Your task to perform on an android device: turn pop-ups on in chrome Image 0: 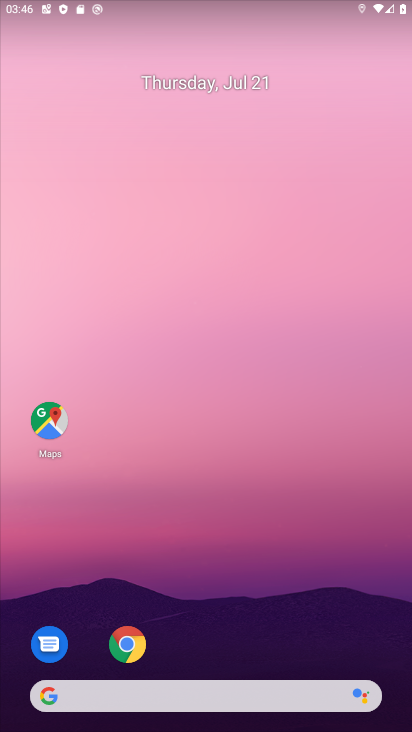
Step 0: click (127, 651)
Your task to perform on an android device: turn pop-ups on in chrome Image 1: 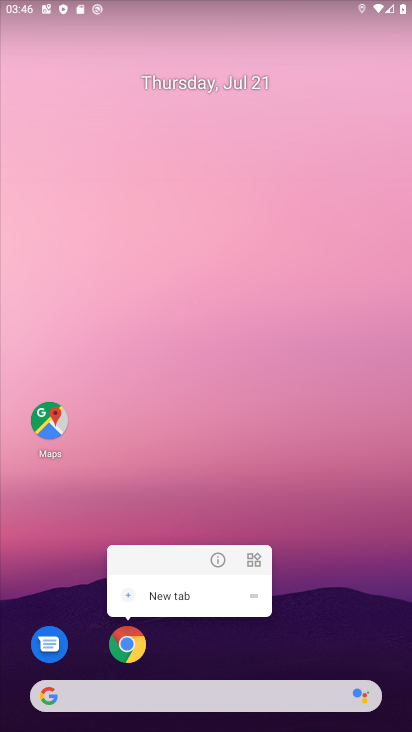
Step 1: click (125, 643)
Your task to perform on an android device: turn pop-ups on in chrome Image 2: 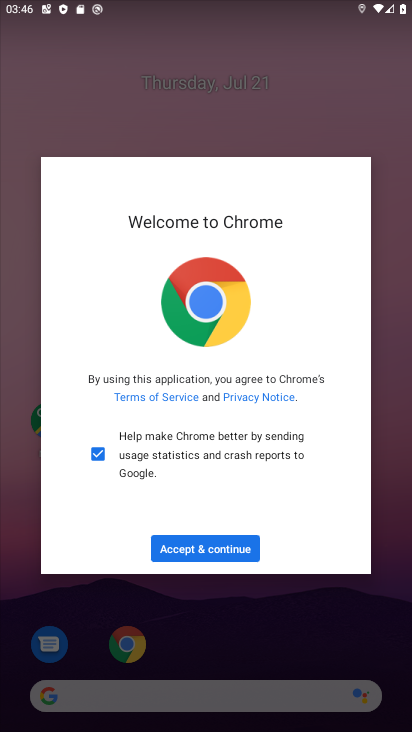
Step 2: click (183, 557)
Your task to perform on an android device: turn pop-ups on in chrome Image 3: 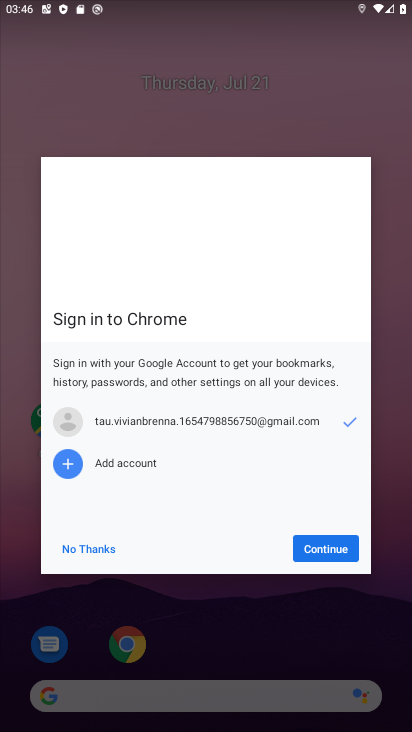
Step 3: click (97, 555)
Your task to perform on an android device: turn pop-ups on in chrome Image 4: 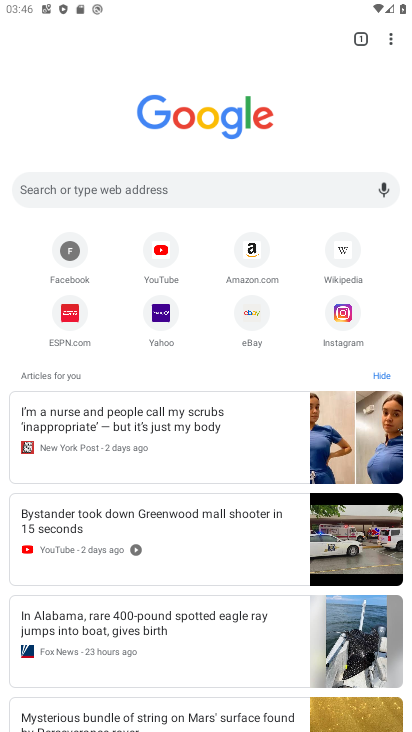
Step 4: click (392, 40)
Your task to perform on an android device: turn pop-ups on in chrome Image 5: 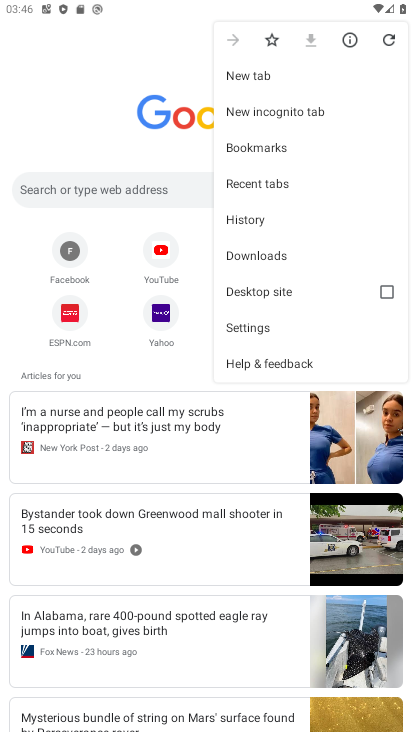
Step 5: click (242, 322)
Your task to perform on an android device: turn pop-ups on in chrome Image 6: 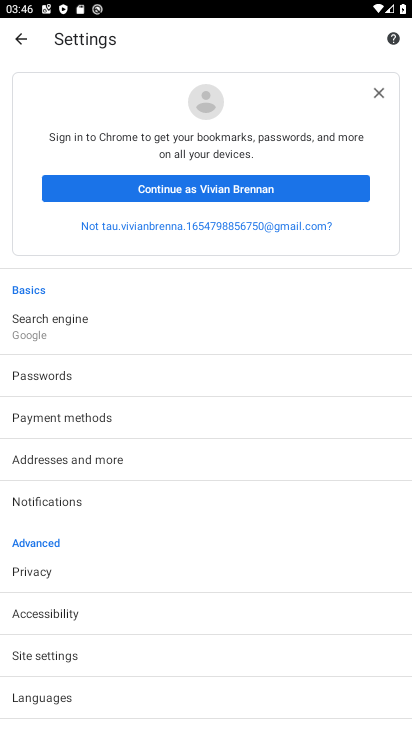
Step 6: click (73, 657)
Your task to perform on an android device: turn pop-ups on in chrome Image 7: 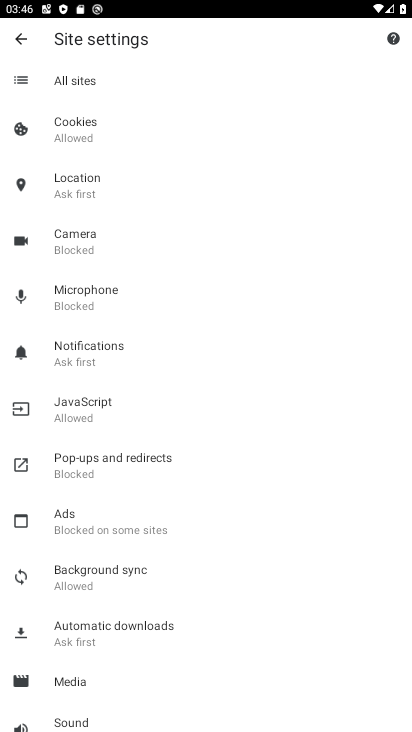
Step 7: click (68, 478)
Your task to perform on an android device: turn pop-ups on in chrome Image 8: 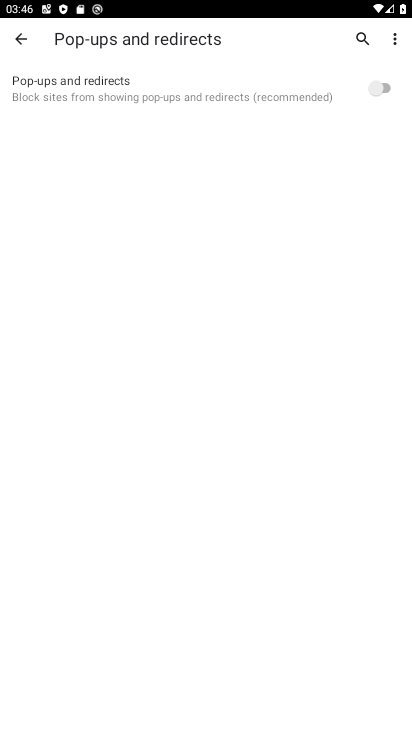
Step 8: click (381, 93)
Your task to perform on an android device: turn pop-ups on in chrome Image 9: 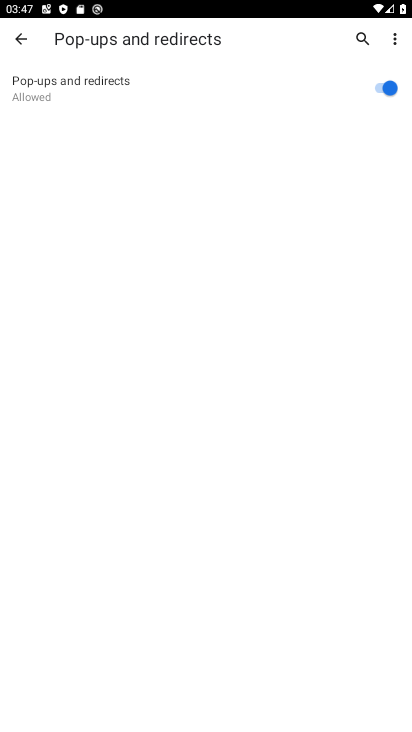
Step 9: task complete